Your task to perform on an android device: Open Google Maps and go to "Timeline" Image 0: 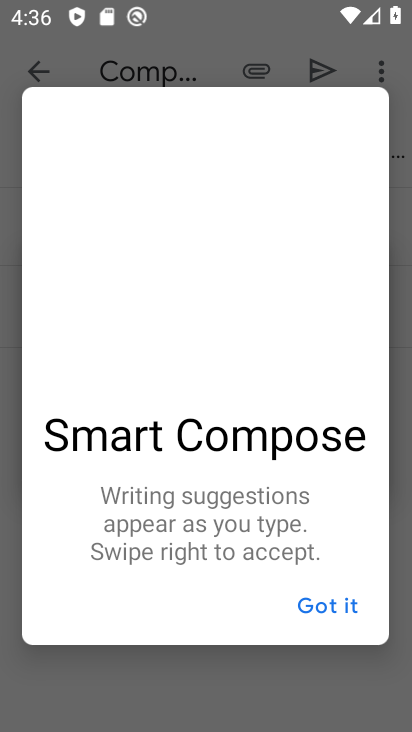
Step 0: press home button
Your task to perform on an android device: Open Google Maps and go to "Timeline" Image 1: 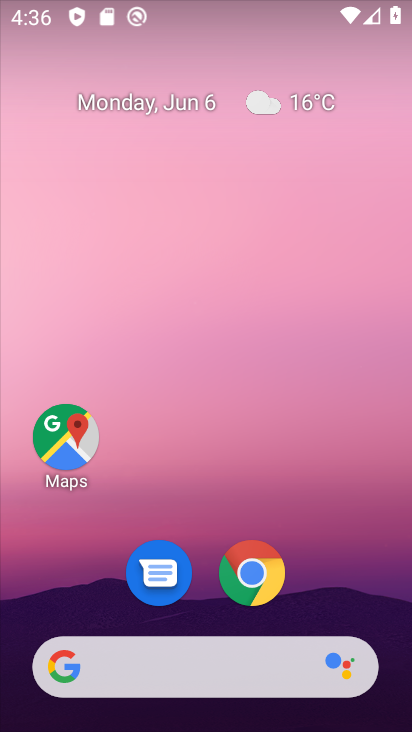
Step 1: click (66, 438)
Your task to perform on an android device: Open Google Maps and go to "Timeline" Image 2: 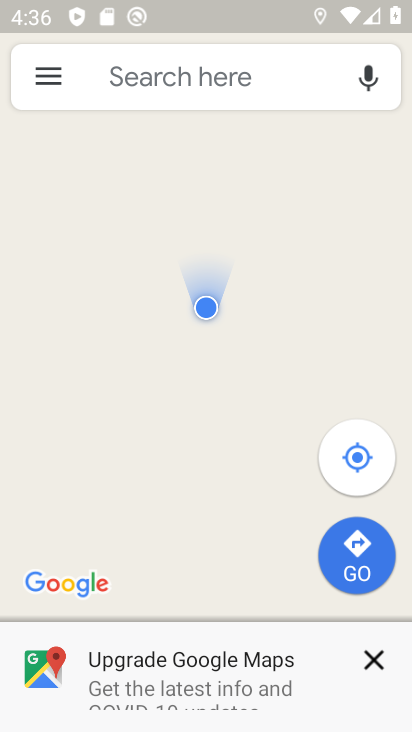
Step 2: click (38, 72)
Your task to perform on an android device: Open Google Maps and go to "Timeline" Image 3: 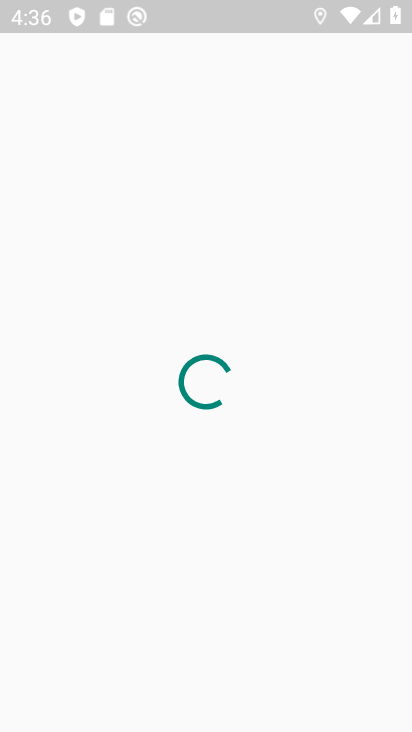
Step 3: click (171, 350)
Your task to perform on an android device: Open Google Maps and go to "Timeline" Image 4: 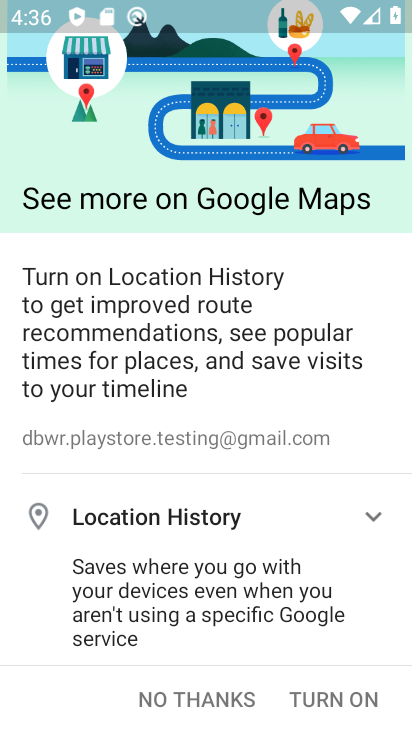
Step 4: click (244, 697)
Your task to perform on an android device: Open Google Maps and go to "Timeline" Image 5: 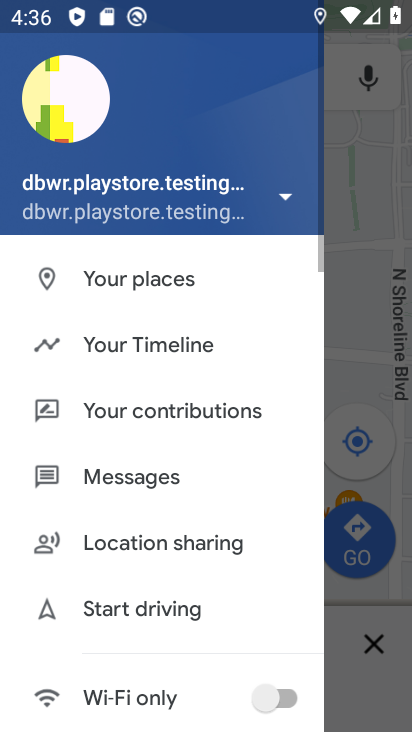
Step 5: click (121, 340)
Your task to perform on an android device: Open Google Maps and go to "Timeline" Image 6: 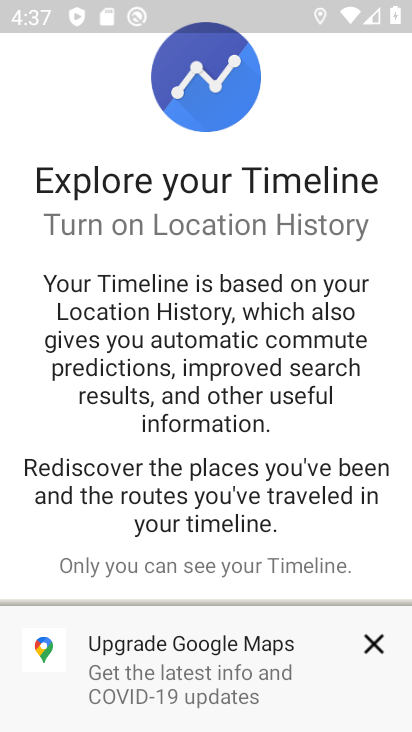
Step 6: click (377, 642)
Your task to perform on an android device: Open Google Maps and go to "Timeline" Image 7: 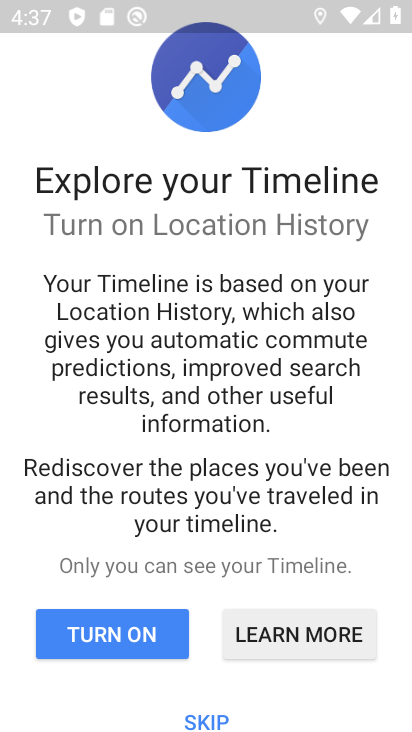
Step 7: drag from (221, 687) to (320, 493)
Your task to perform on an android device: Open Google Maps and go to "Timeline" Image 8: 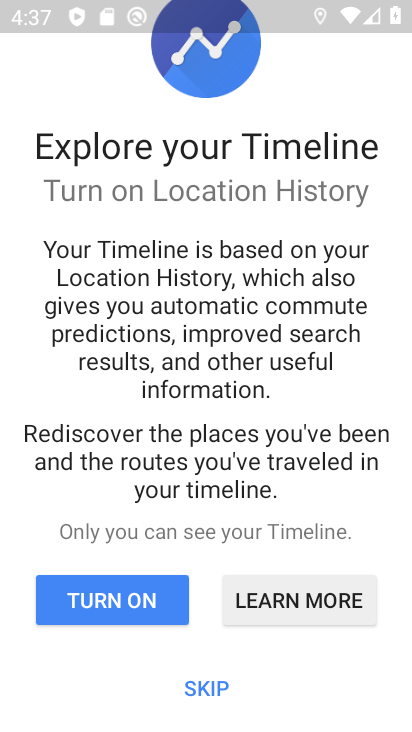
Step 8: click (219, 682)
Your task to perform on an android device: Open Google Maps and go to "Timeline" Image 9: 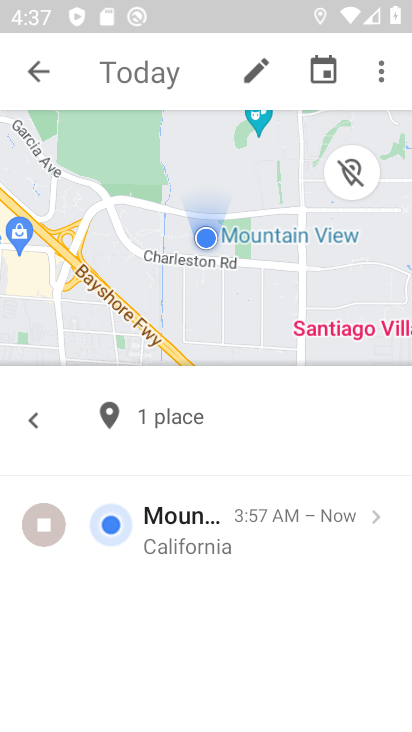
Step 9: task complete